Your task to perform on an android device: check data usage Image 0: 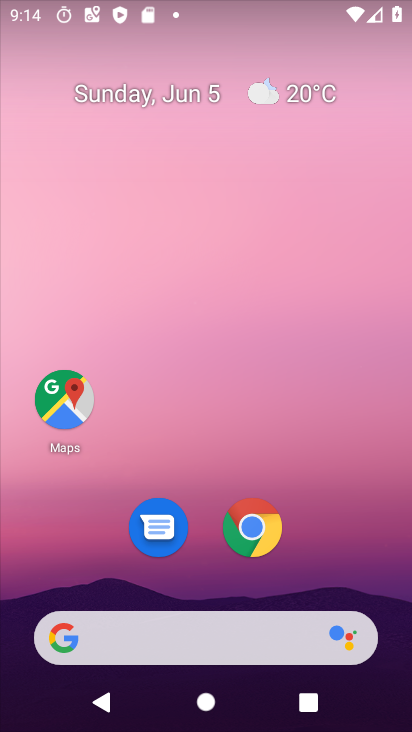
Step 0: drag from (307, 142) to (201, 7)
Your task to perform on an android device: check data usage Image 1: 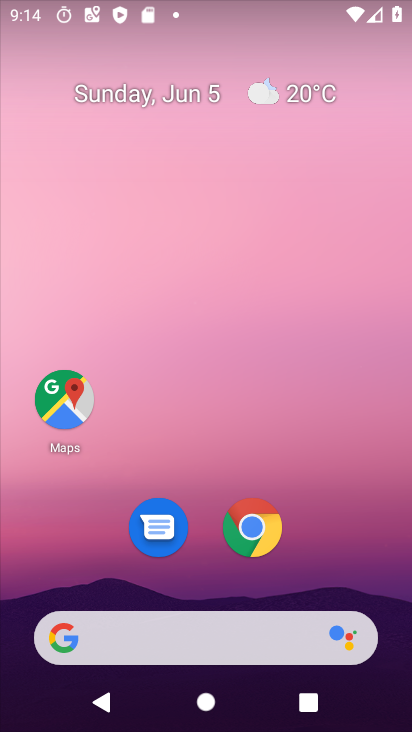
Step 1: drag from (344, 532) to (261, 9)
Your task to perform on an android device: check data usage Image 2: 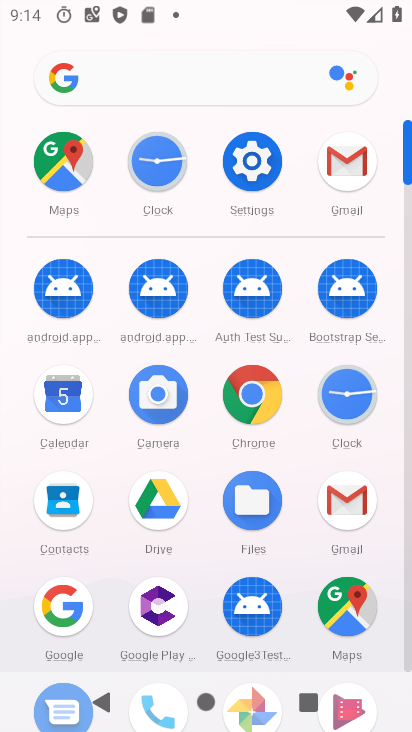
Step 2: click (264, 174)
Your task to perform on an android device: check data usage Image 3: 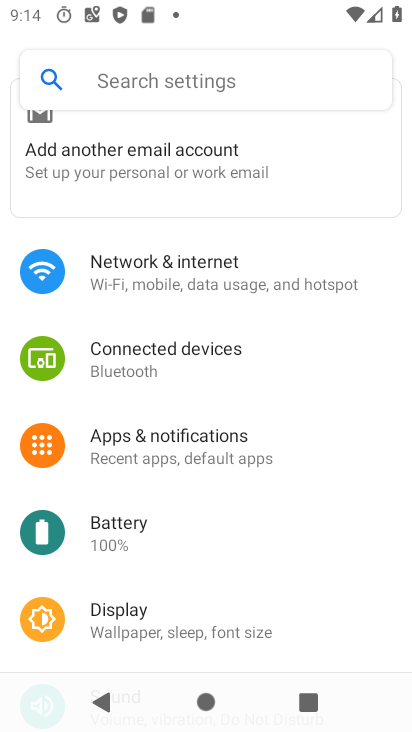
Step 3: click (169, 262)
Your task to perform on an android device: check data usage Image 4: 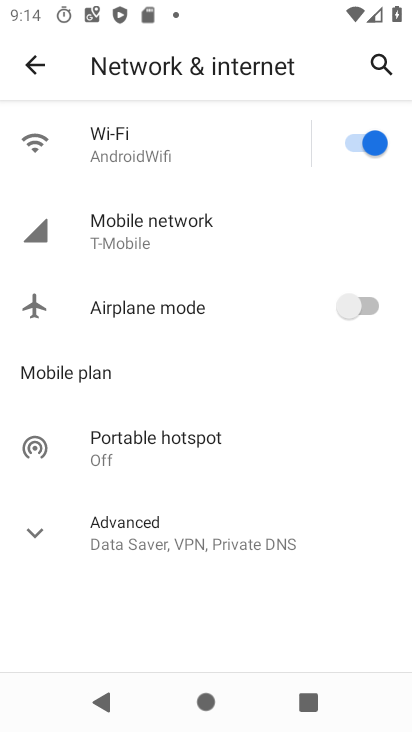
Step 4: click (130, 220)
Your task to perform on an android device: check data usage Image 5: 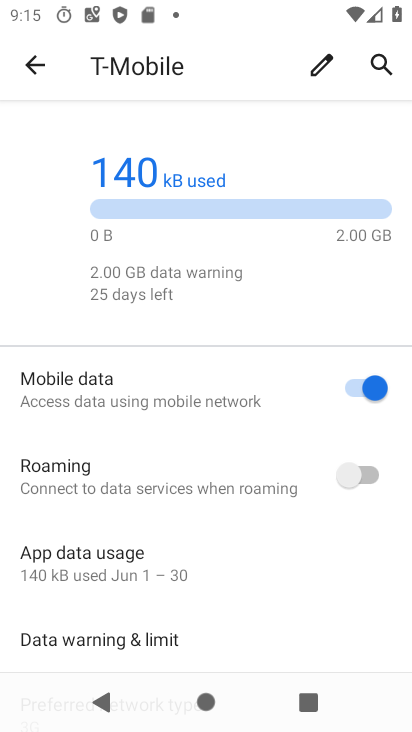
Step 5: task complete